Your task to perform on an android device: toggle sleep mode Image 0: 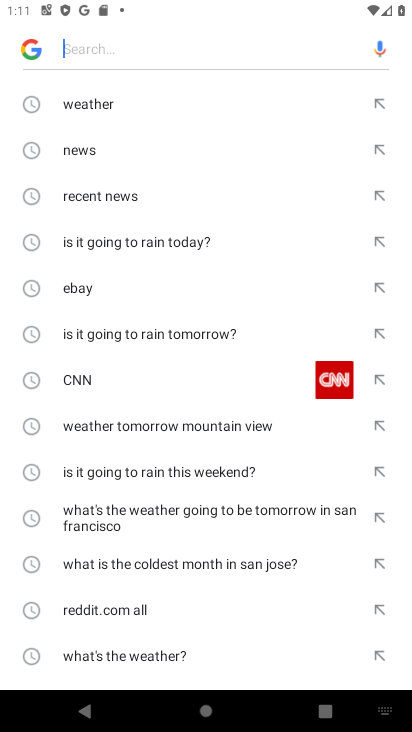
Step 0: press home button
Your task to perform on an android device: toggle sleep mode Image 1: 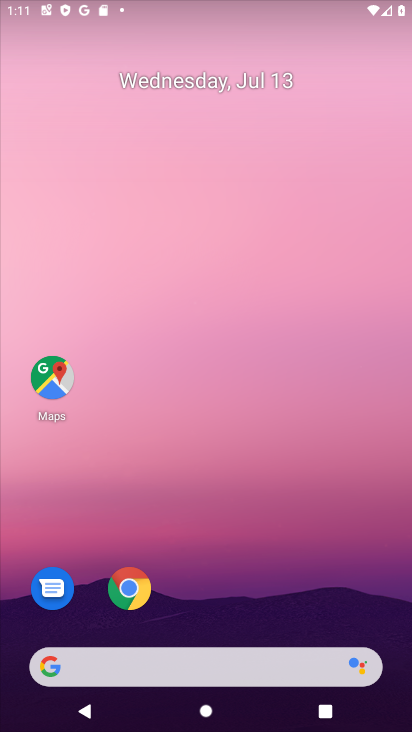
Step 1: drag from (200, 8) to (171, 528)
Your task to perform on an android device: toggle sleep mode Image 2: 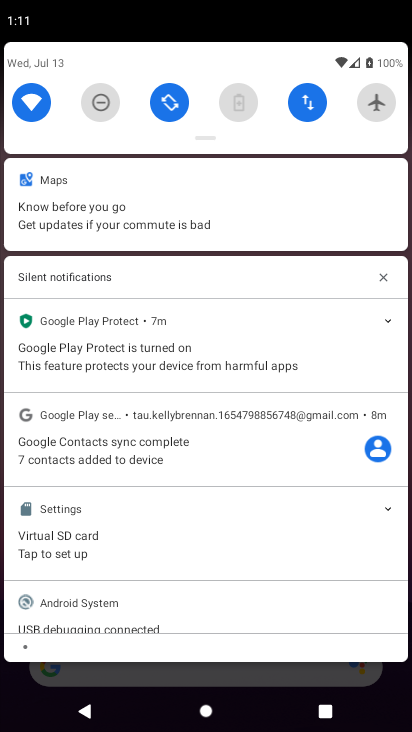
Step 2: drag from (229, 135) to (163, 648)
Your task to perform on an android device: toggle sleep mode Image 3: 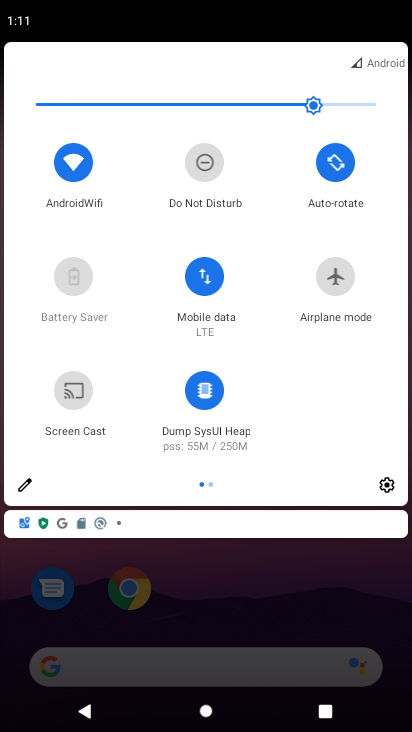
Step 3: click (23, 488)
Your task to perform on an android device: toggle sleep mode Image 4: 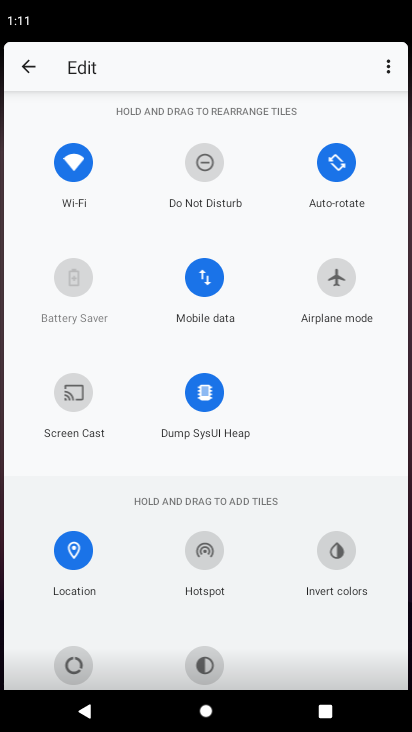
Step 4: task complete